Your task to perform on an android device: Do I have any events this weekend? Image 0: 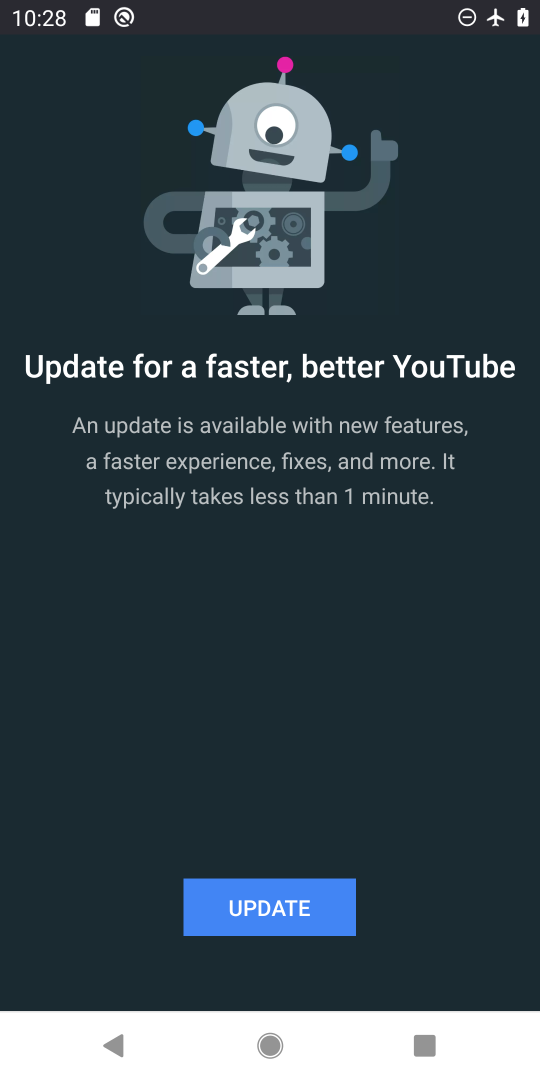
Step 0: click (275, 1038)
Your task to perform on an android device: Do I have any events this weekend? Image 1: 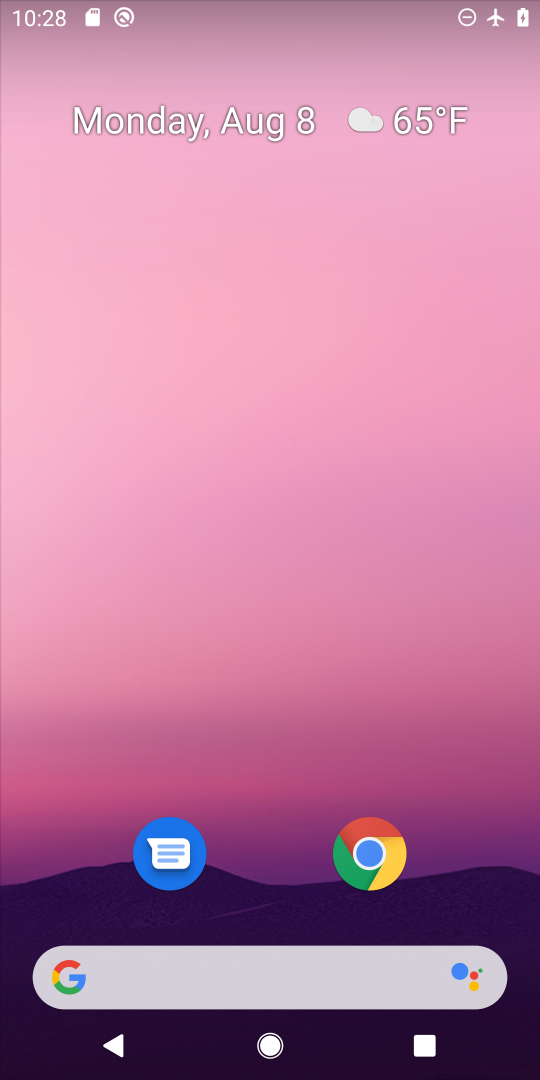
Step 1: drag from (282, 898) to (356, 96)
Your task to perform on an android device: Do I have any events this weekend? Image 2: 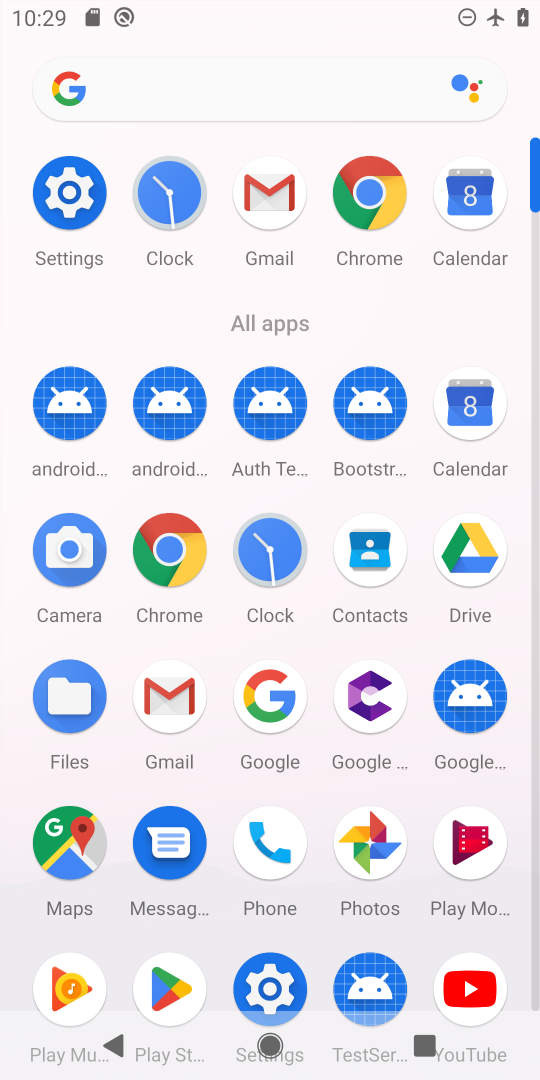
Step 2: click (451, 205)
Your task to perform on an android device: Do I have any events this weekend? Image 3: 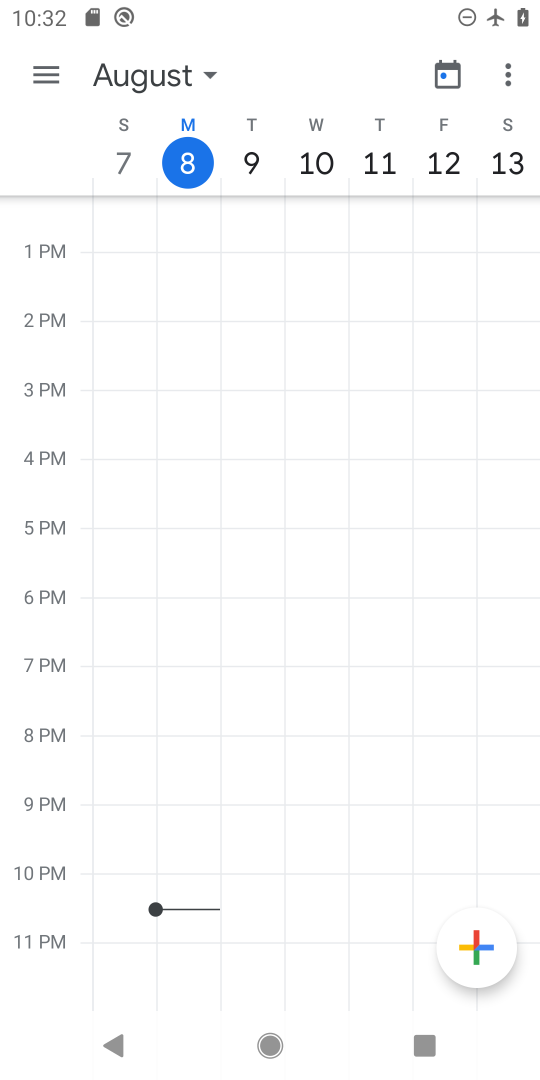
Step 3: task complete